Your task to perform on an android device: read, delete, or share a saved page in the chrome app Image 0: 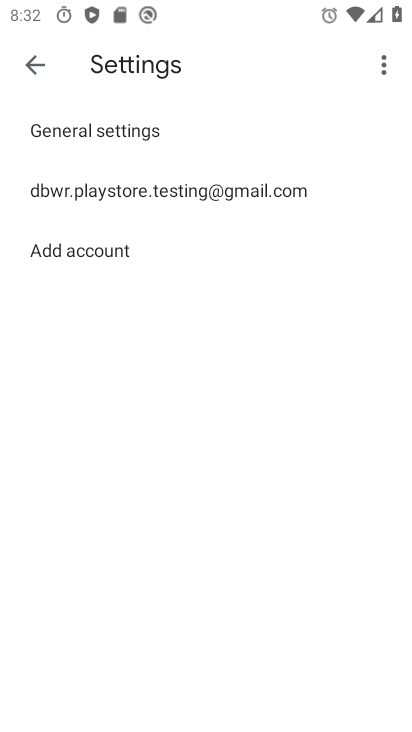
Step 0: press home button
Your task to perform on an android device: read, delete, or share a saved page in the chrome app Image 1: 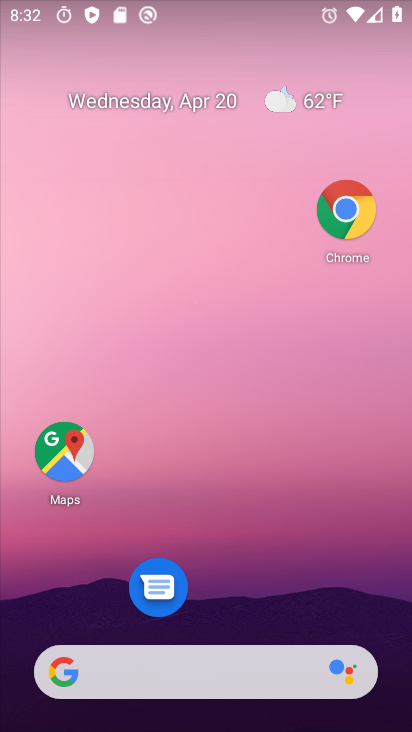
Step 1: click (345, 226)
Your task to perform on an android device: read, delete, or share a saved page in the chrome app Image 2: 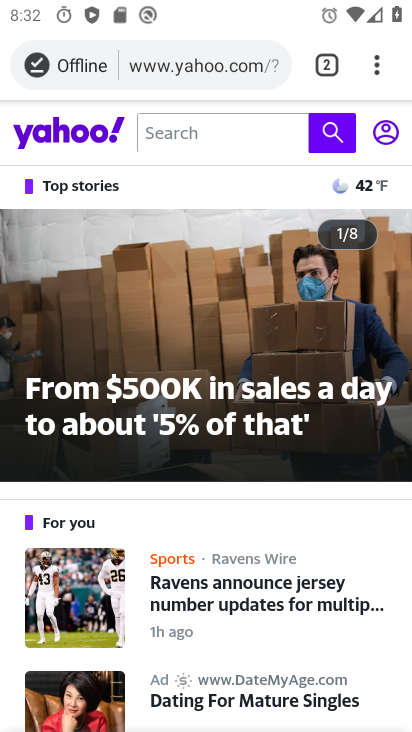
Step 2: click (376, 67)
Your task to perform on an android device: read, delete, or share a saved page in the chrome app Image 3: 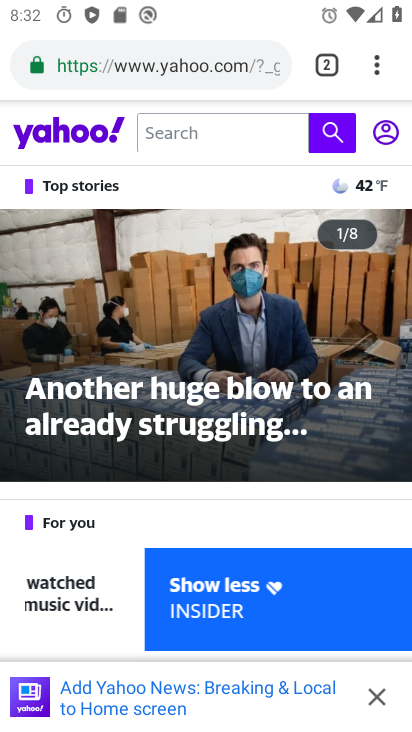
Step 3: click (373, 77)
Your task to perform on an android device: read, delete, or share a saved page in the chrome app Image 4: 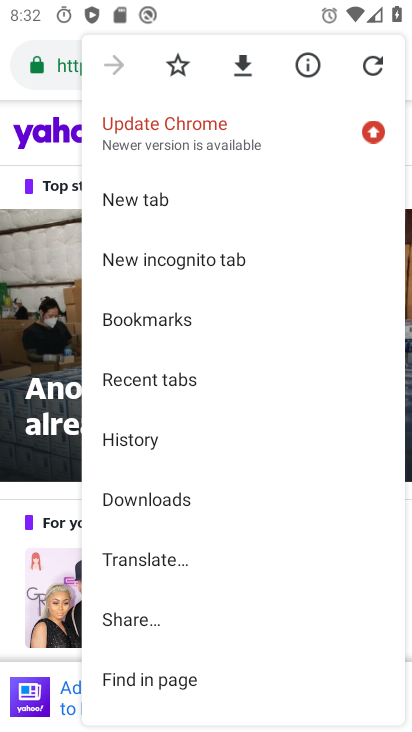
Step 4: click (256, 498)
Your task to perform on an android device: read, delete, or share a saved page in the chrome app Image 5: 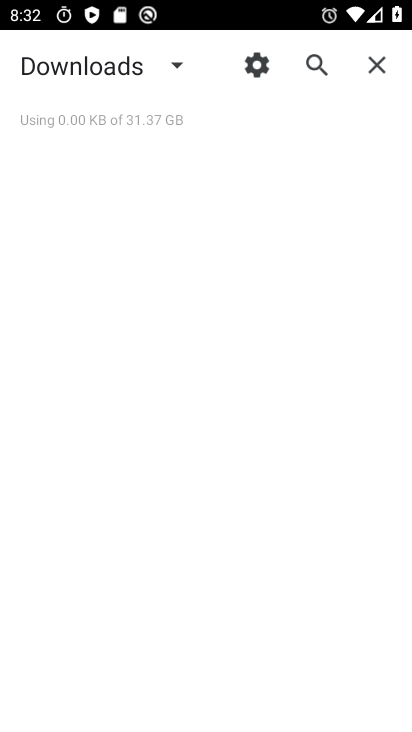
Step 5: task complete